Your task to perform on an android device: remove spam from my inbox in the gmail app Image 0: 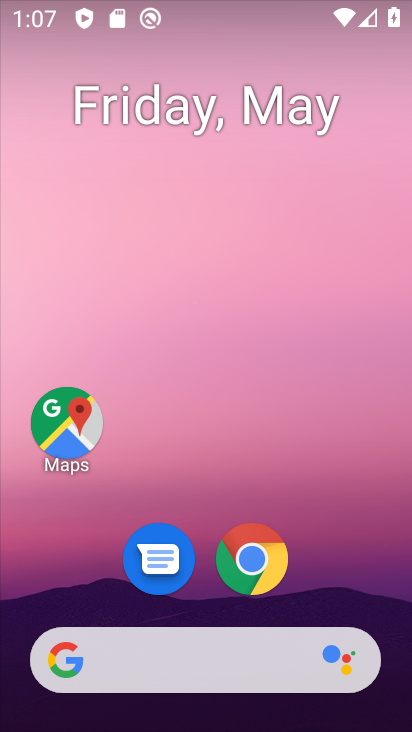
Step 0: drag from (323, 587) to (300, 162)
Your task to perform on an android device: remove spam from my inbox in the gmail app Image 1: 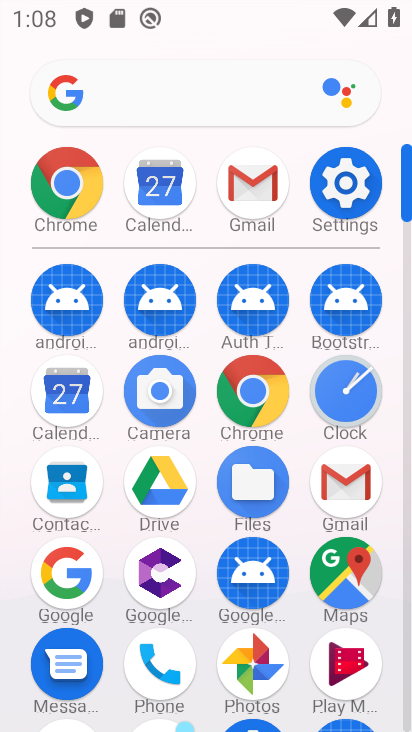
Step 1: click (363, 504)
Your task to perform on an android device: remove spam from my inbox in the gmail app Image 2: 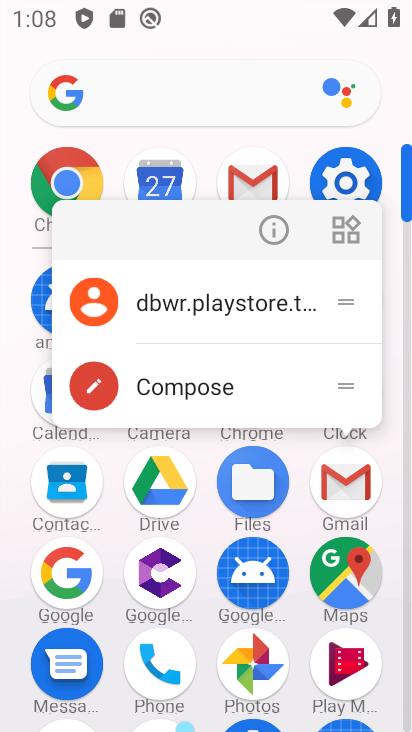
Step 2: click (363, 485)
Your task to perform on an android device: remove spam from my inbox in the gmail app Image 3: 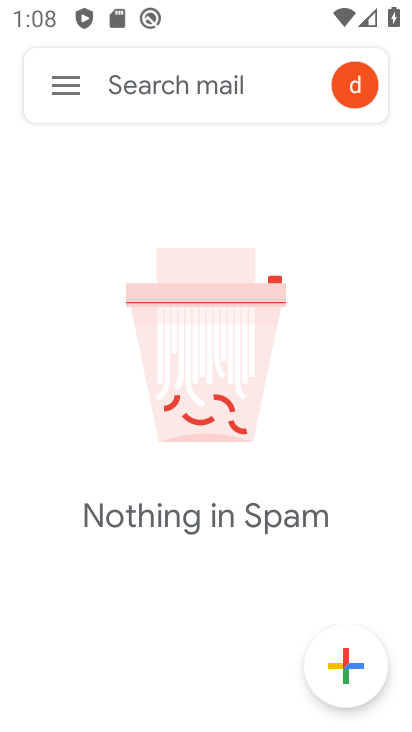
Step 3: click (75, 81)
Your task to perform on an android device: remove spam from my inbox in the gmail app Image 4: 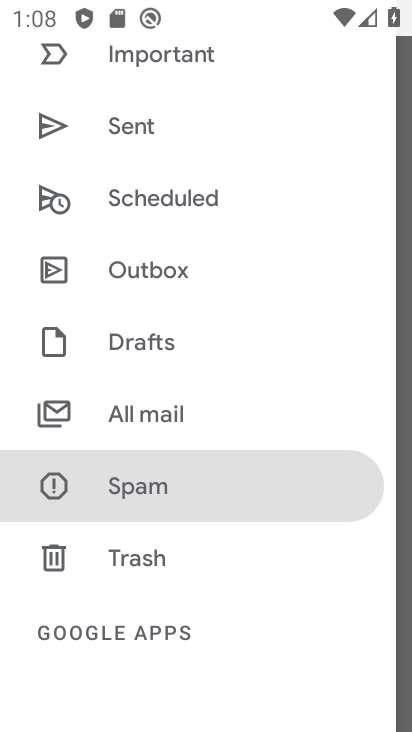
Step 4: click (186, 498)
Your task to perform on an android device: remove spam from my inbox in the gmail app Image 5: 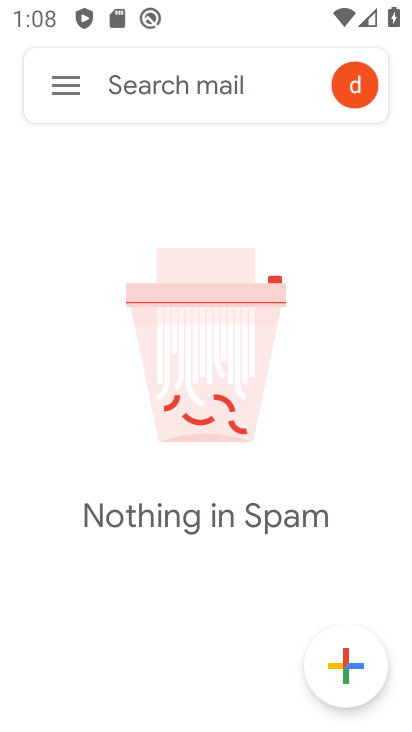
Step 5: task complete